Your task to perform on an android device: Go to Google maps Image 0: 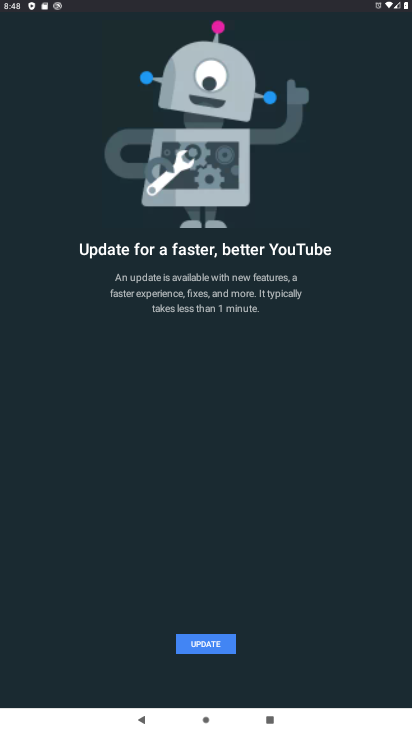
Step 0: press home button
Your task to perform on an android device: Go to Google maps Image 1: 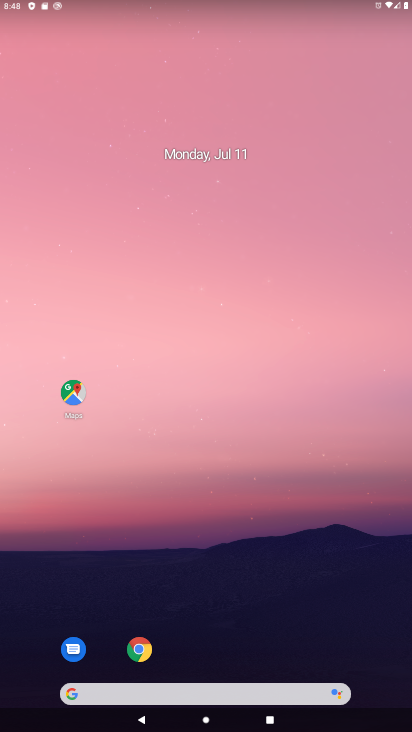
Step 1: click (72, 393)
Your task to perform on an android device: Go to Google maps Image 2: 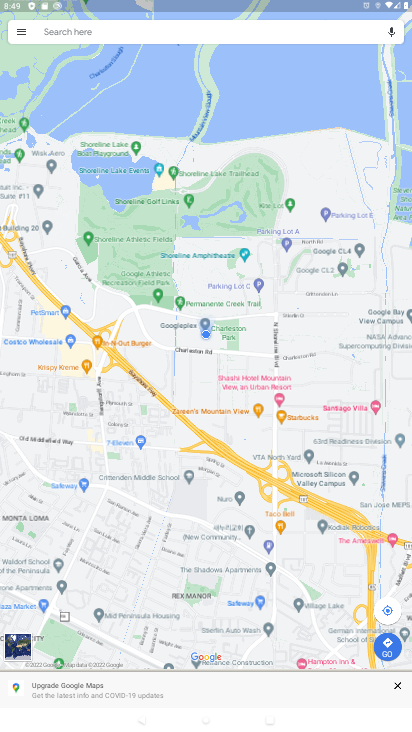
Step 2: task complete